Your task to perform on an android device: Turn off the flashlight Image 0: 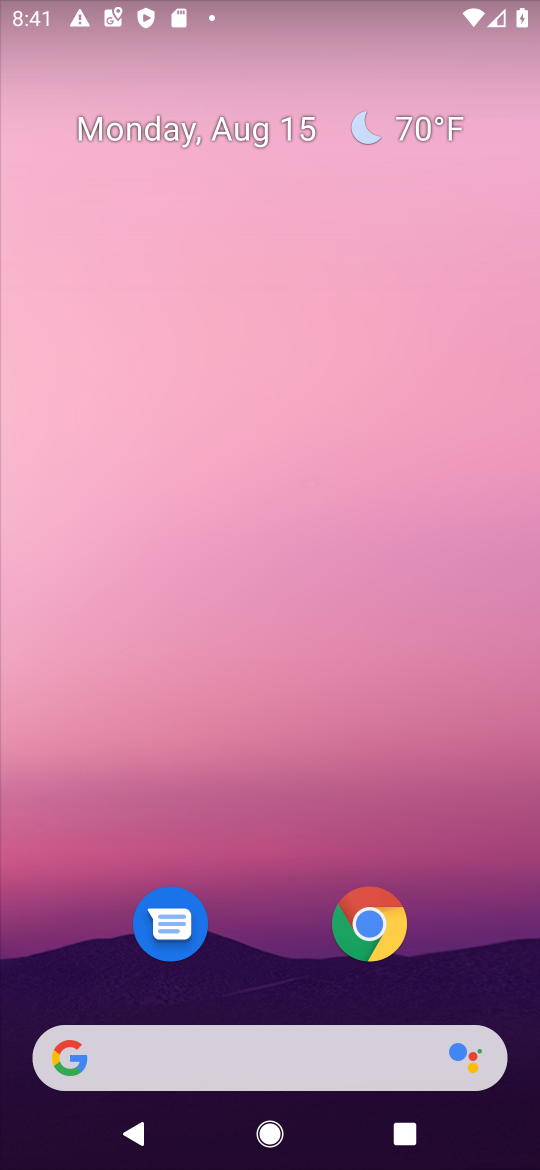
Step 0: drag from (301, 69) to (318, 663)
Your task to perform on an android device: Turn off the flashlight Image 1: 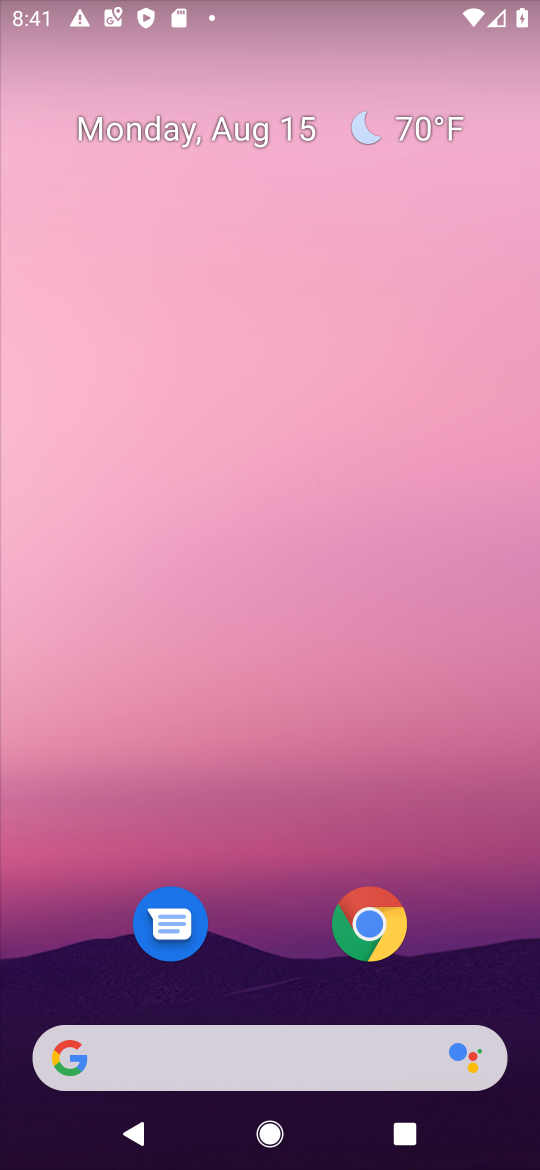
Step 1: drag from (319, 16) to (342, 828)
Your task to perform on an android device: Turn off the flashlight Image 2: 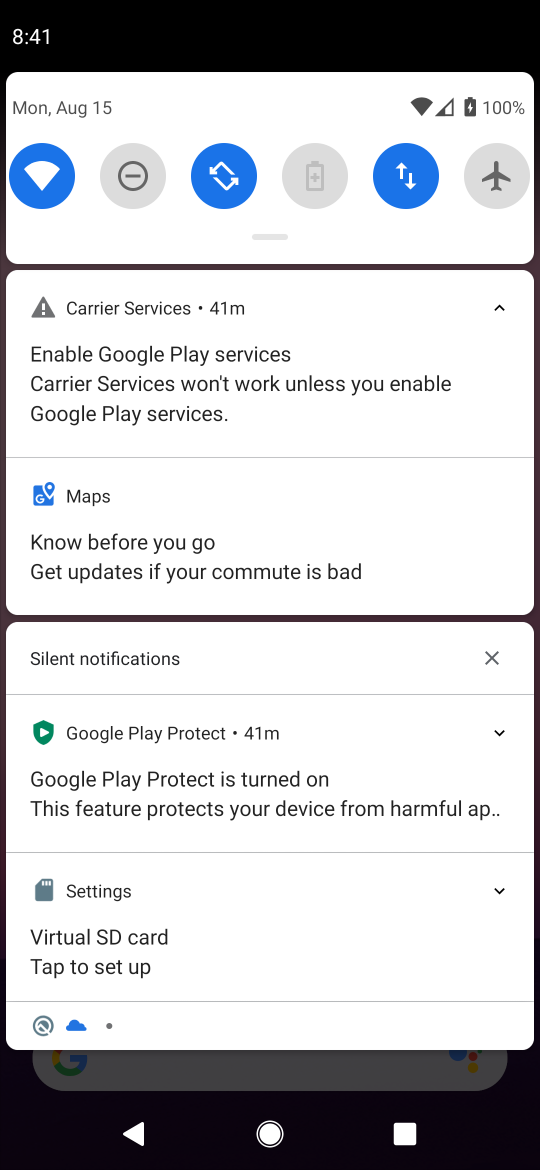
Step 2: drag from (275, 238) to (265, 688)
Your task to perform on an android device: Turn off the flashlight Image 3: 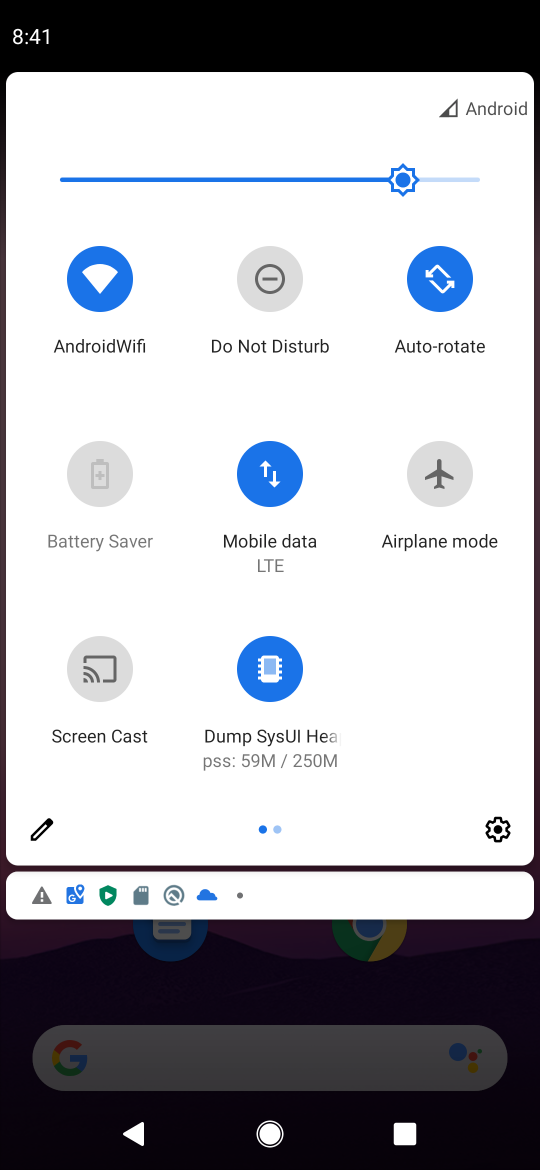
Step 3: click (43, 826)
Your task to perform on an android device: Turn off the flashlight Image 4: 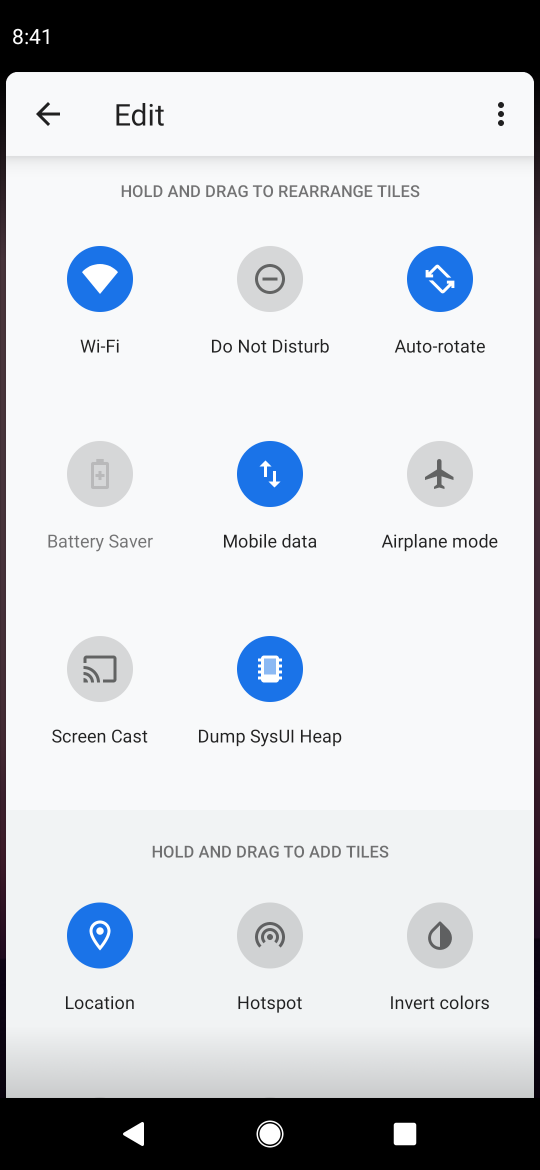
Step 4: task complete